Your task to perform on an android device: toggle notification dots Image 0: 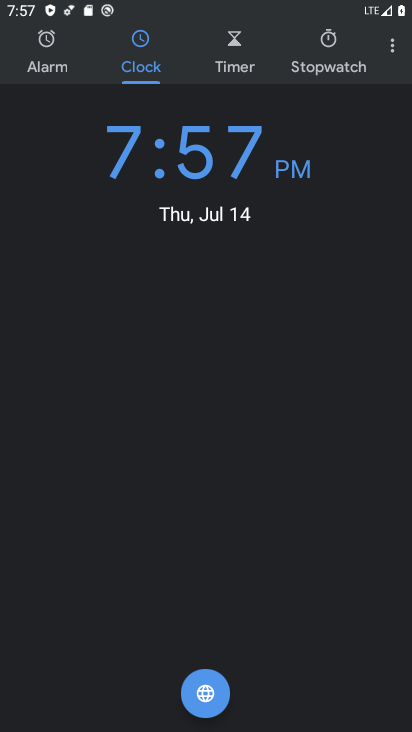
Step 0: press home button
Your task to perform on an android device: toggle notification dots Image 1: 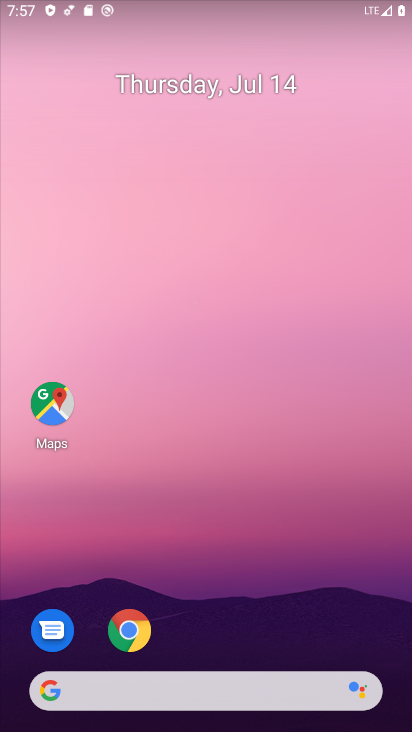
Step 1: drag from (227, 603) to (241, 262)
Your task to perform on an android device: toggle notification dots Image 2: 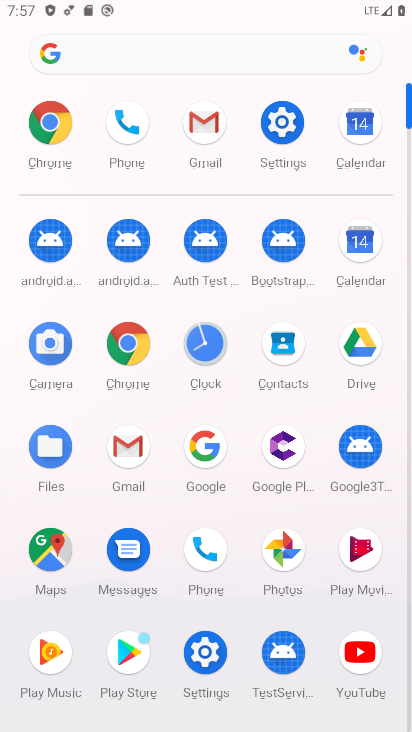
Step 2: click (280, 122)
Your task to perform on an android device: toggle notification dots Image 3: 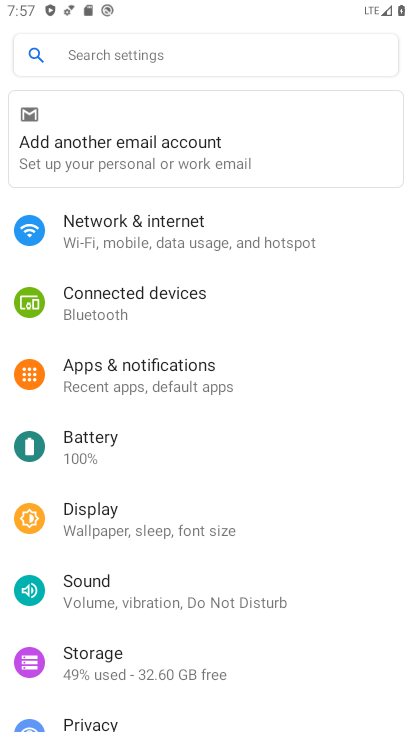
Step 3: click (168, 49)
Your task to perform on an android device: toggle notification dots Image 4: 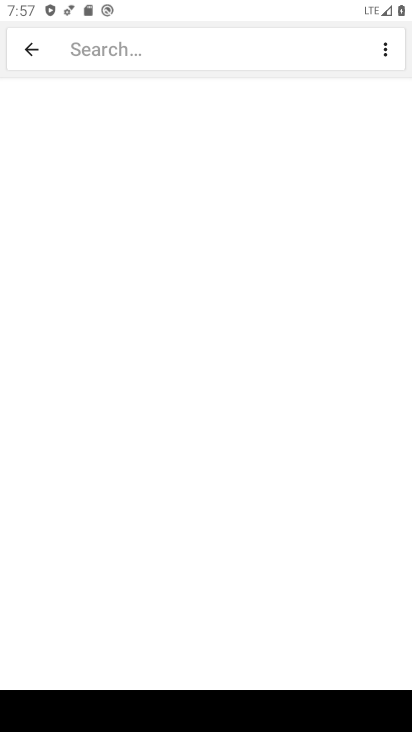
Step 4: type "notification dots "
Your task to perform on an android device: toggle notification dots Image 5: 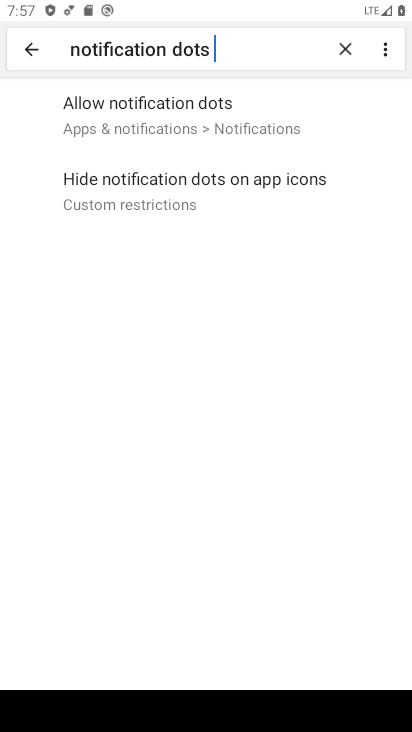
Step 5: click (277, 129)
Your task to perform on an android device: toggle notification dots Image 6: 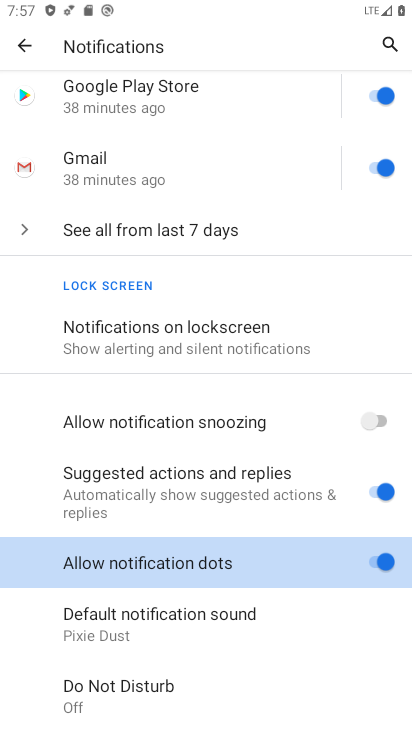
Step 6: click (380, 552)
Your task to perform on an android device: toggle notification dots Image 7: 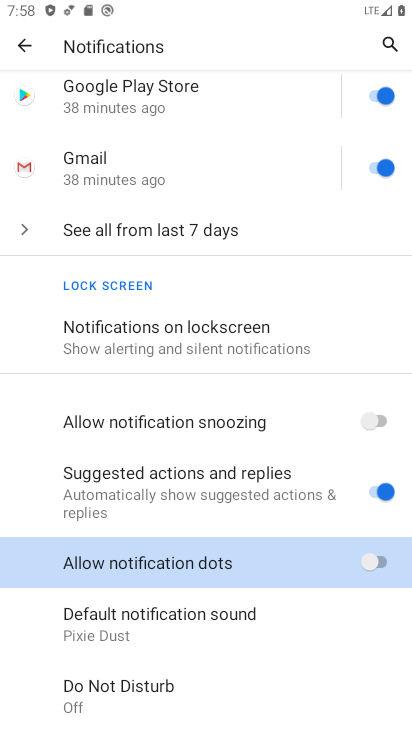
Step 7: task complete